Your task to perform on an android device: Open location settings Image 0: 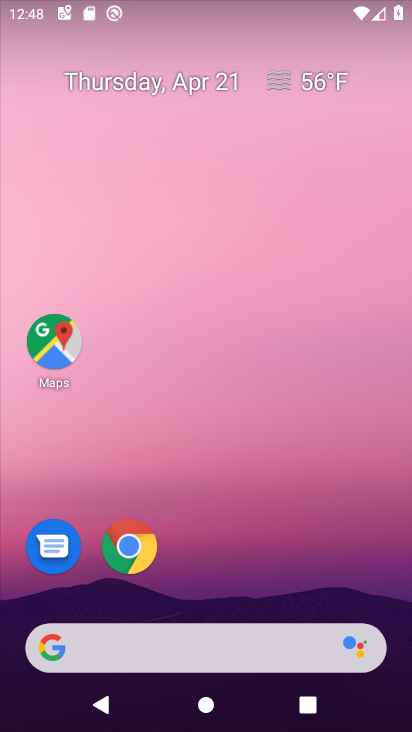
Step 0: drag from (211, 643) to (315, 141)
Your task to perform on an android device: Open location settings Image 1: 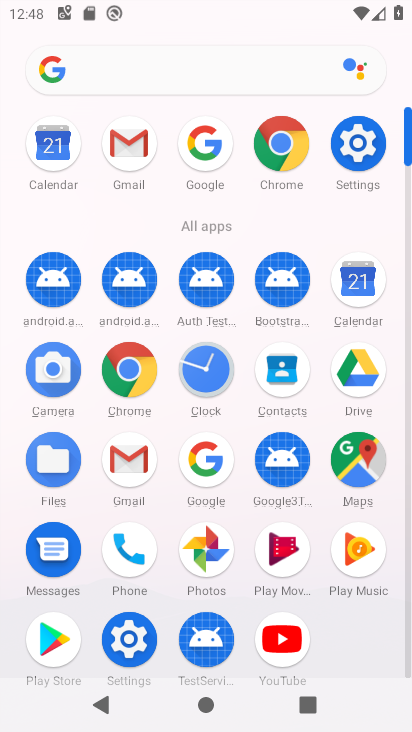
Step 1: click (359, 148)
Your task to perform on an android device: Open location settings Image 2: 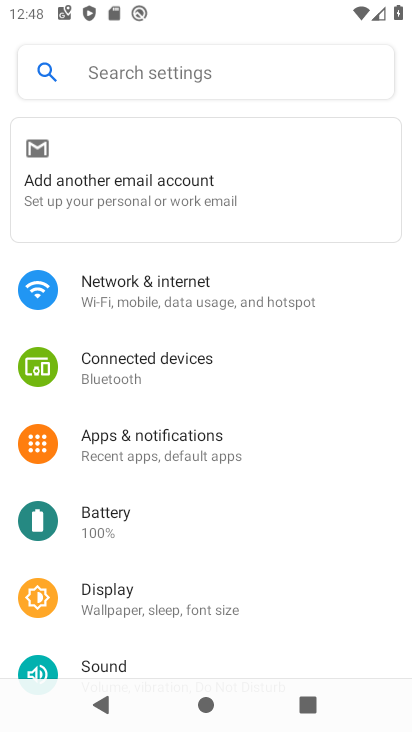
Step 2: drag from (186, 598) to (335, 243)
Your task to perform on an android device: Open location settings Image 3: 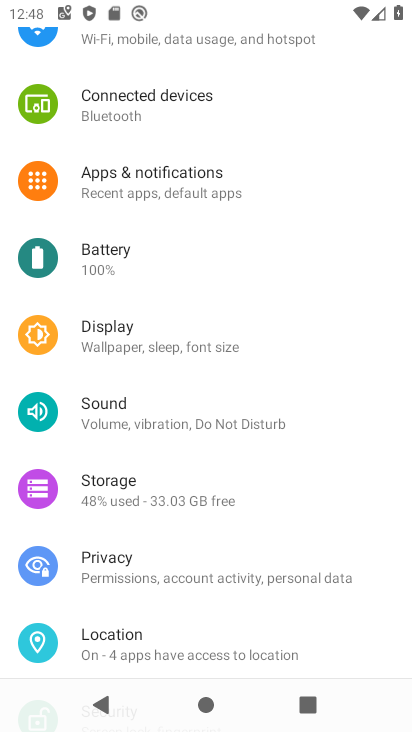
Step 3: click (125, 646)
Your task to perform on an android device: Open location settings Image 4: 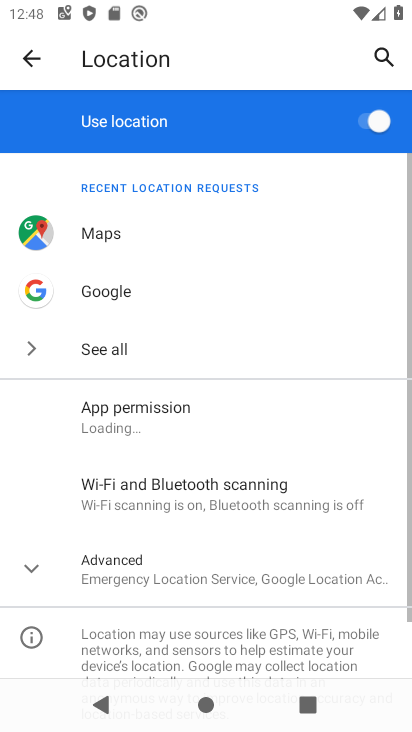
Step 4: task complete